Your task to perform on an android device: Open location settings Image 0: 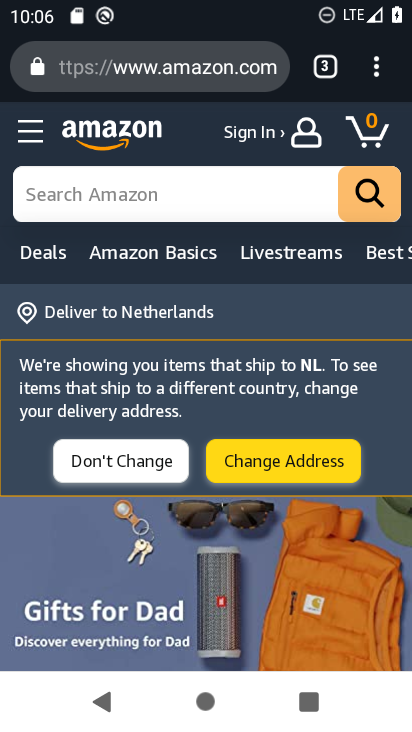
Step 0: press home button
Your task to perform on an android device: Open location settings Image 1: 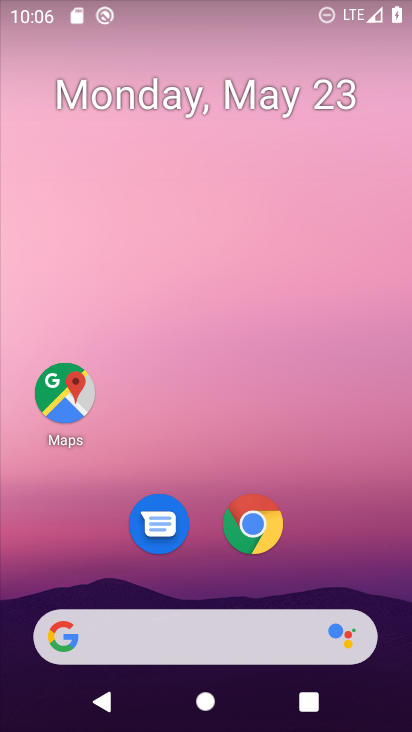
Step 1: drag from (203, 468) to (261, 18)
Your task to perform on an android device: Open location settings Image 2: 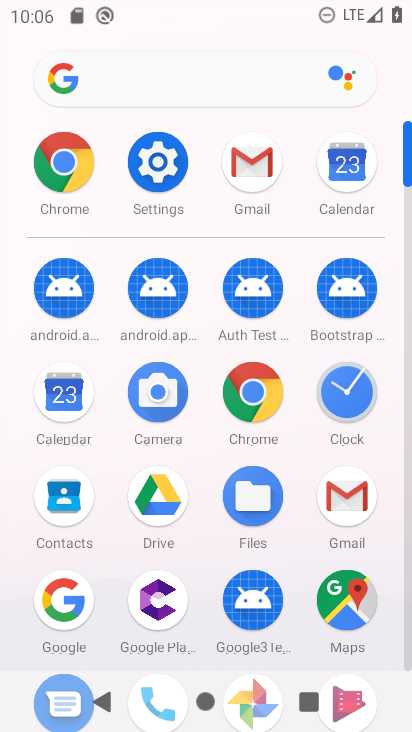
Step 2: click (172, 147)
Your task to perform on an android device: Open location settings Image 3: 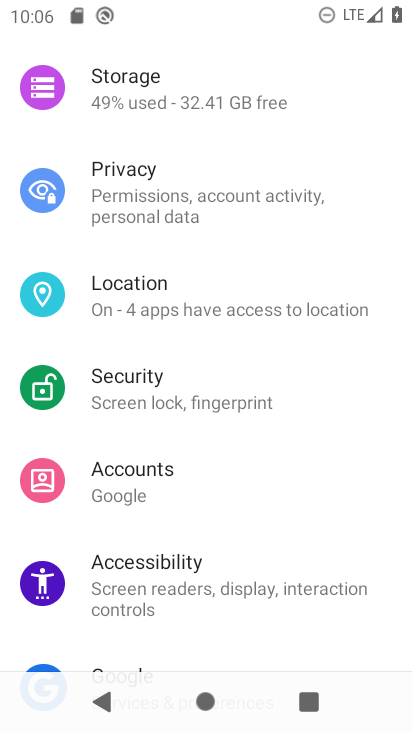
Step 3: click (186, 303)
Your task to perform on an android device: Open location settings Image 4: 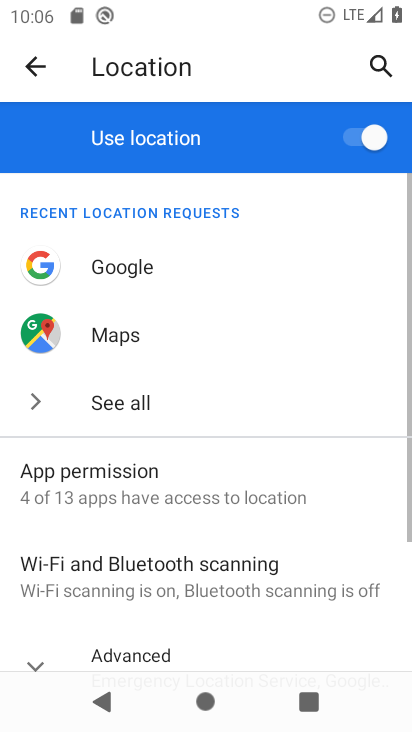
Step 4: task complete